Your task to perform on an android device: open app "Viber Messenger" (install if not already installed) and go to login screen Image 0: 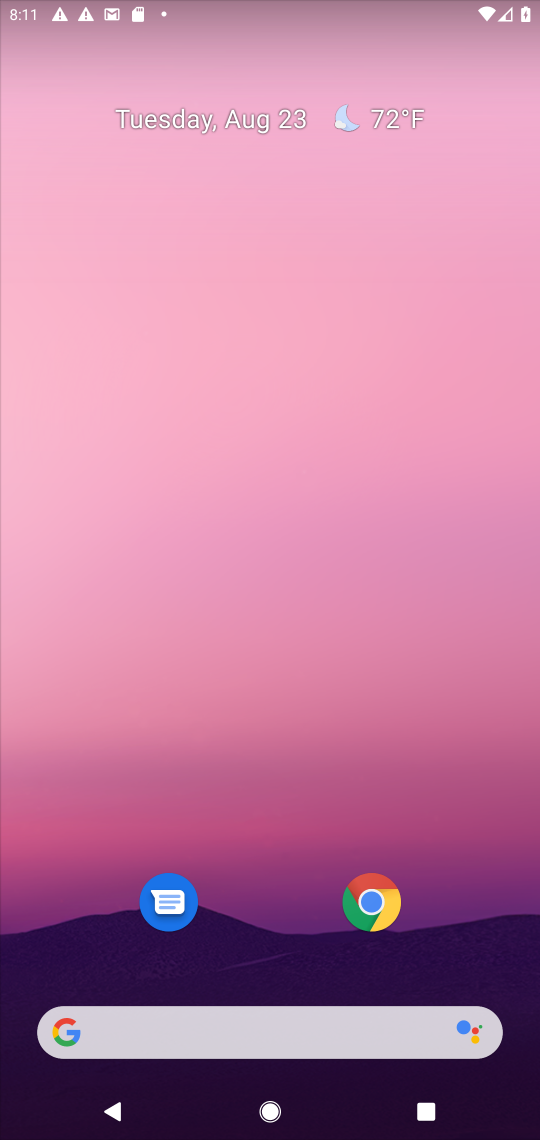
Step 0: drag from (271, 1040) to (186, 24)
Your task to perform on an android device: open app "Viber Messenger" (install if not already installed) and go to login screen Image 1: 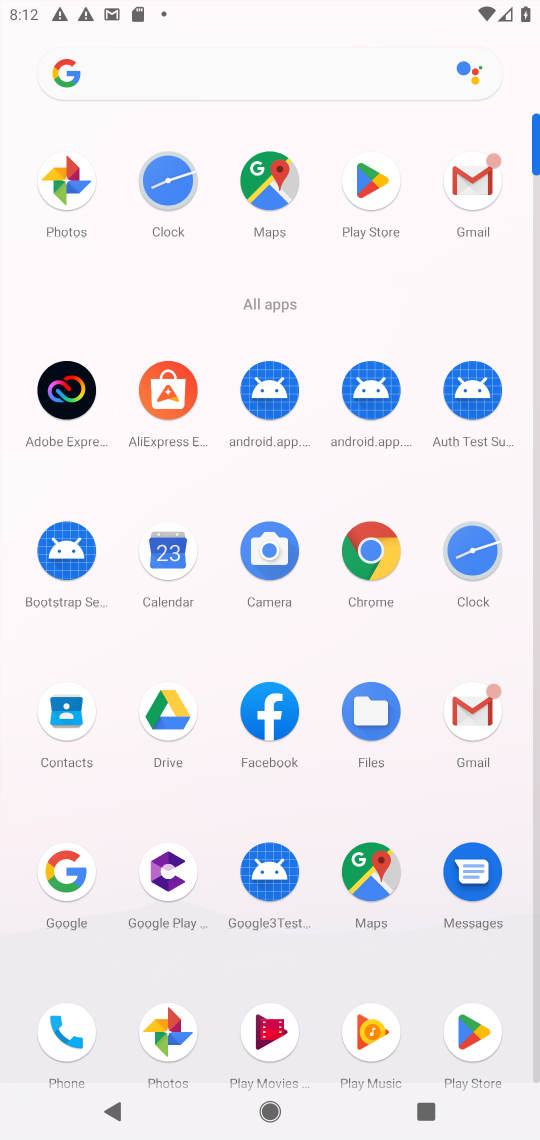
Step 1: click (361, 209)
Your task to perform on an android device: open app "Viber Messenger" (install if not already installed) and go to login screen Image 2: 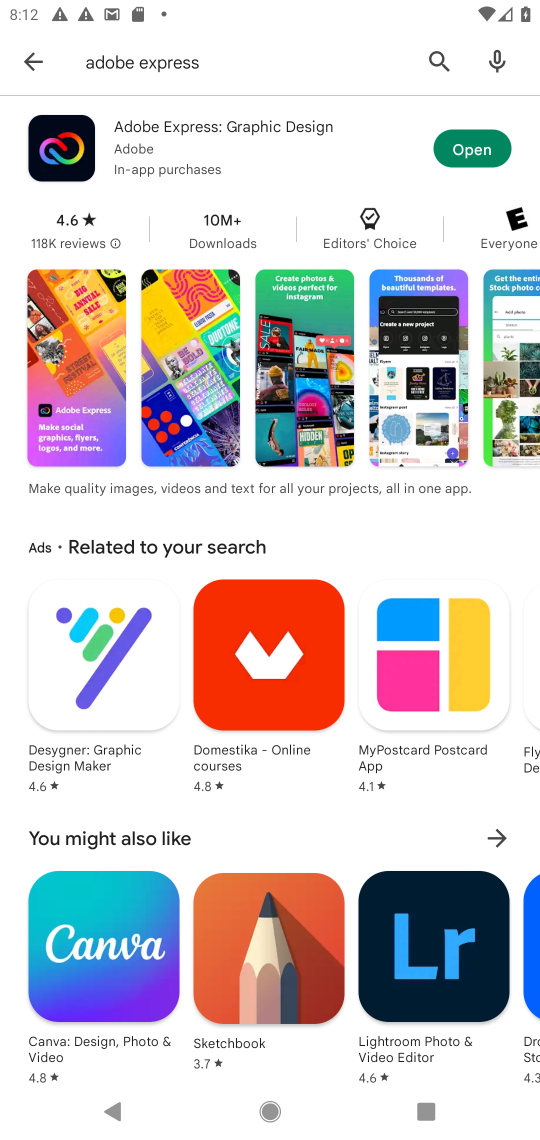
Step 2: click (434, 60)
Your task to perform on an android device: open app "Viber Messenger" (install if not already installed) and go to login screen Image 3: 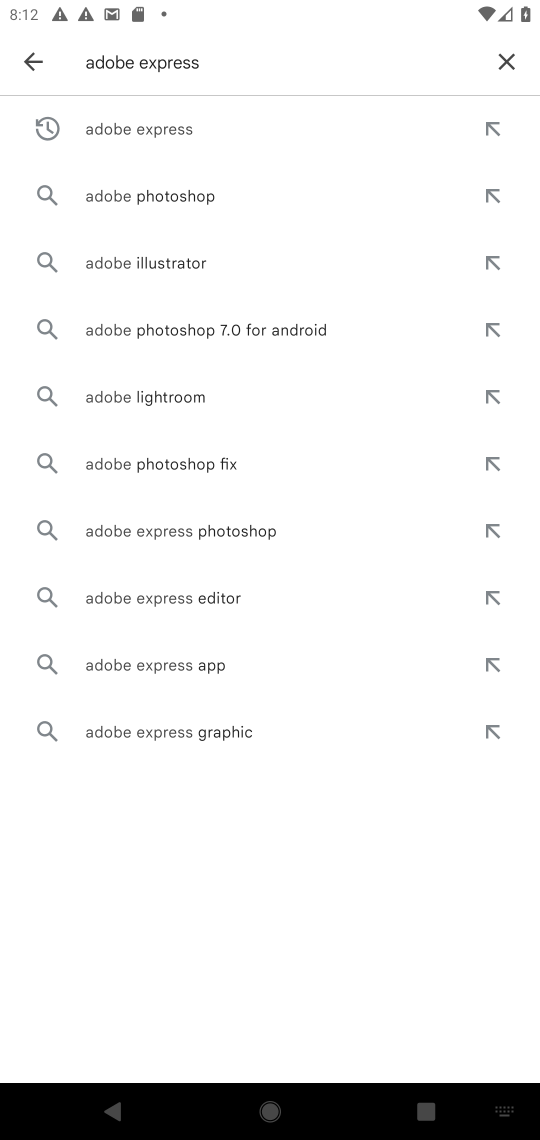
Step 3: click (506, 69)
Your task to perform on an android device: open app "Viber Messenger" (install if not already installed) and go to login screen Image 4: 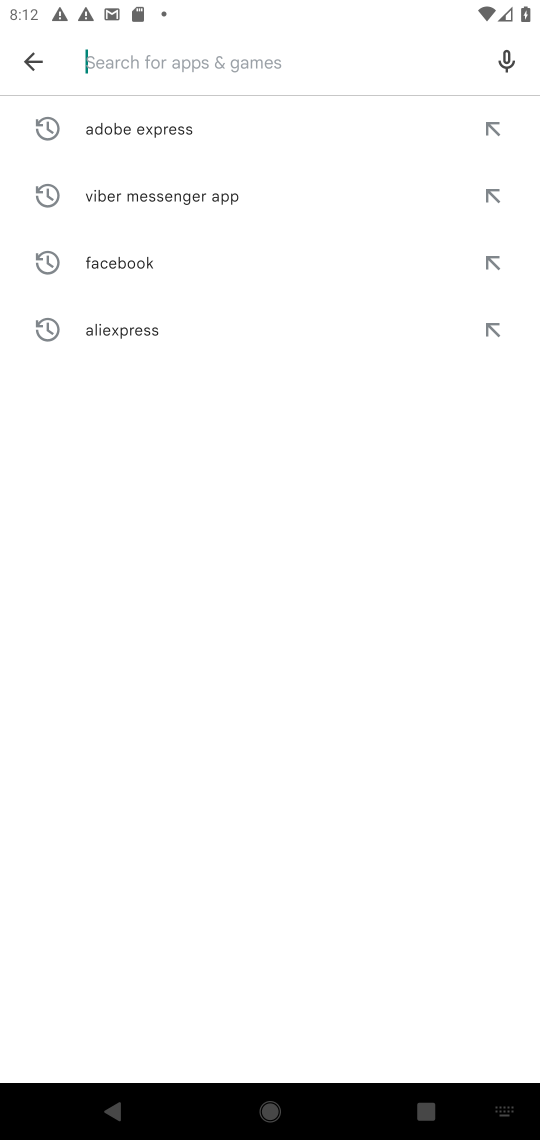
Step 4: type "viber messenger"
Your task to perform on an android device: open app "Viber Messenger" (install if not already installed) and go to login screen Image 5: 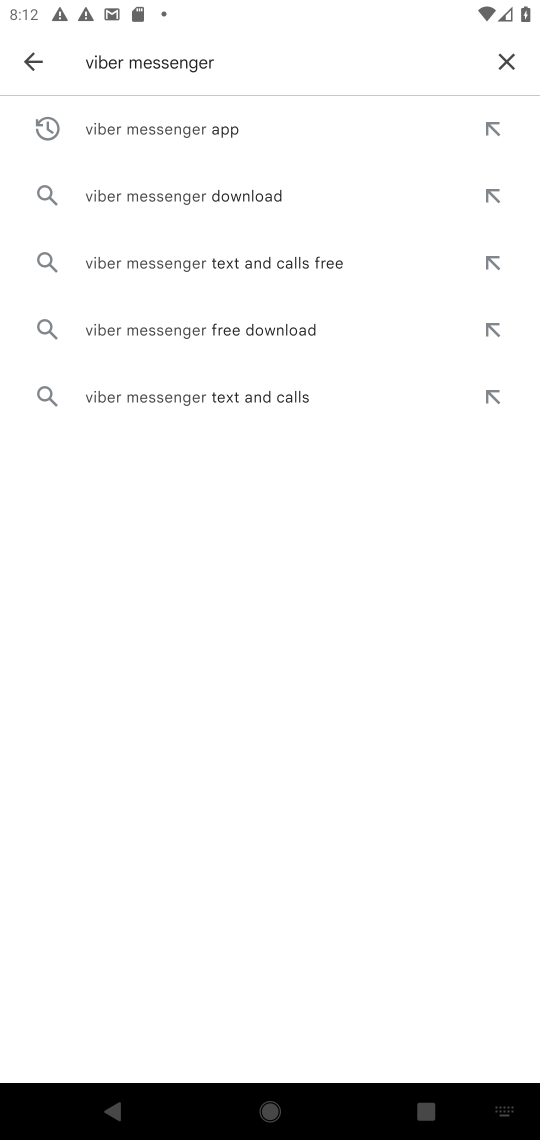
Step 5: click (170, 117)
Your task to perform on an android device: open app "Viber Messenger" (install if not already installed) and go to login screen Image 6: 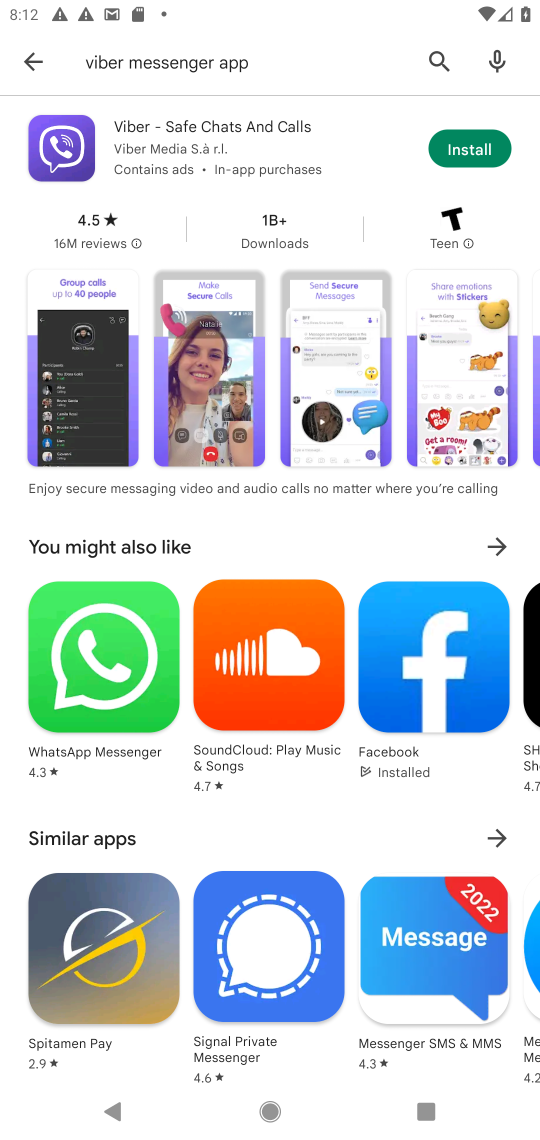
Step 6: click (476, 153)
Your task to perform on an android device: open app "Viber Messenger" (install if not already installed) and go to login screen Image 7: 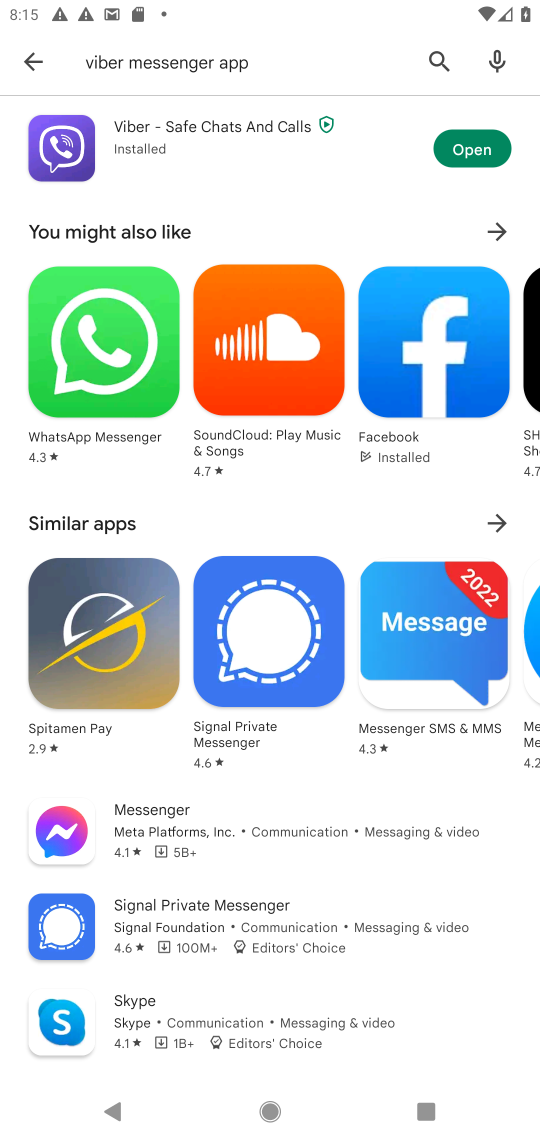
Step 7: click (451, 140)
Your task to perform on an android device: open app "Viber Messenger" (install if not already installed) and go to login screen Image 8: 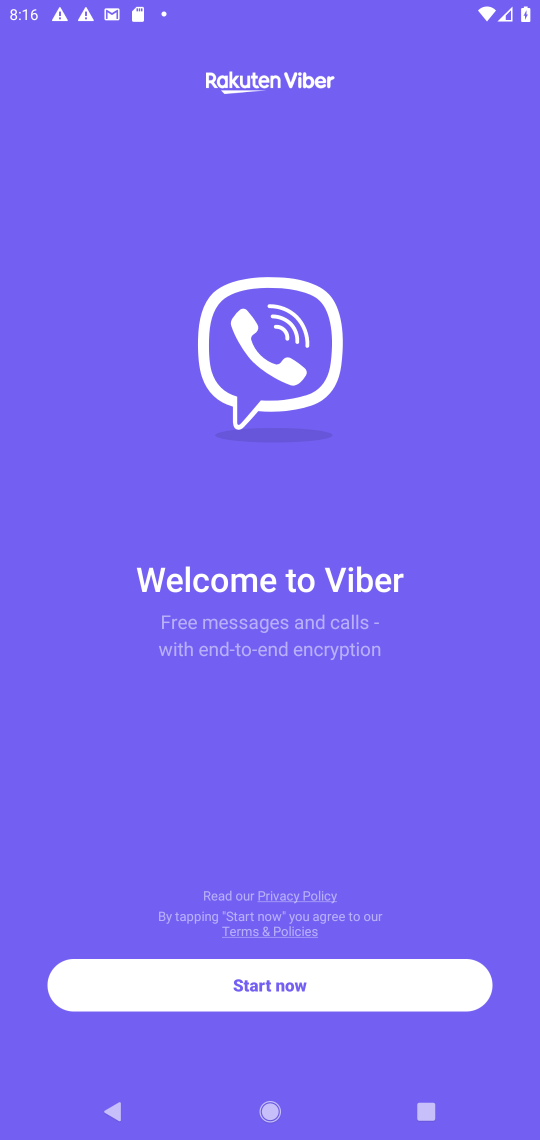
Step 8: click (343, 992)
Your task to perform on an android device: open app "Viber Messenger" (install if not already installed) and go to login screen Image 9: 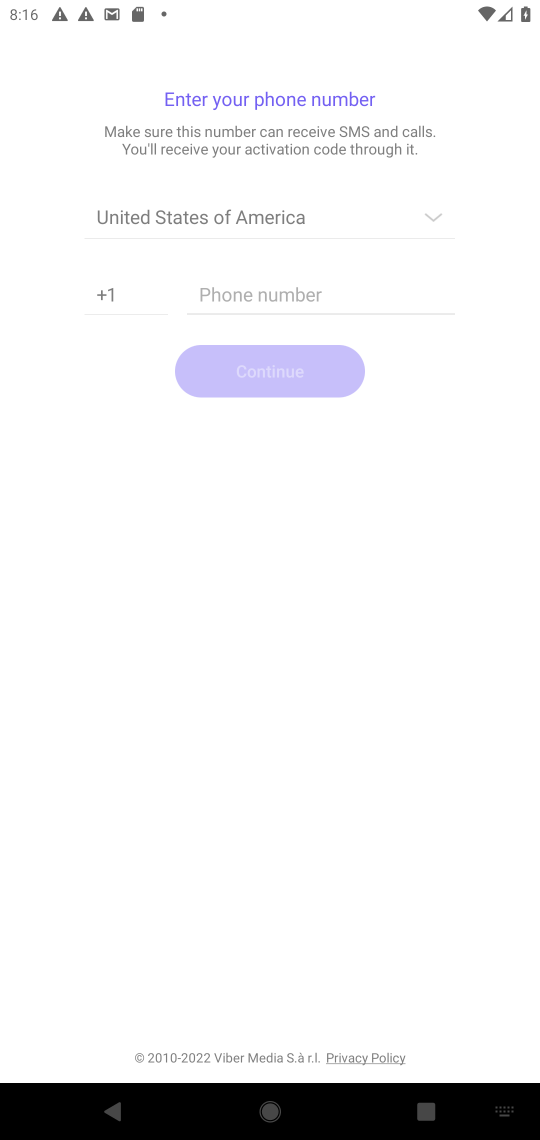
Step 9: task complete